Your task to perform on an android device: change timer sound Image 0: 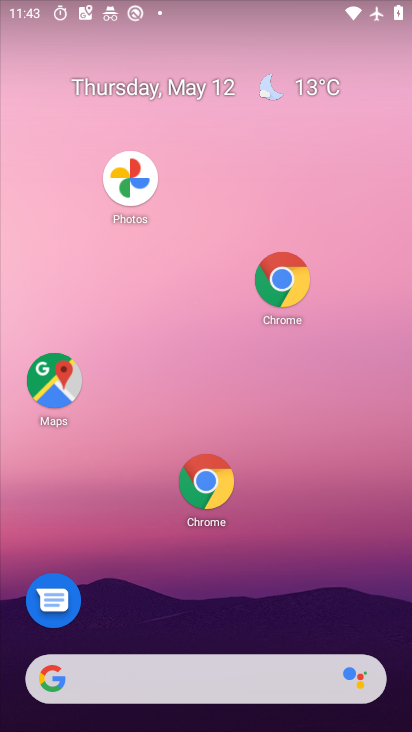
Step 0: drag from (364, 629) to (188, 200)
Your task to perform on an android device: change timer sound Image 1: 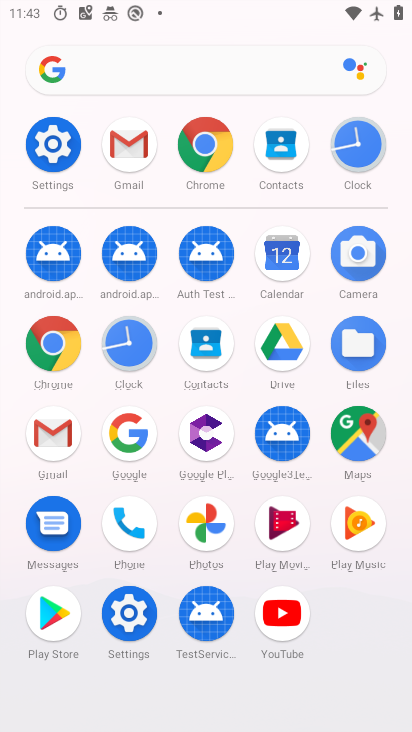
Step 1: click (109, 334)
Your task to perform on an android device: change timer sound Image 2: 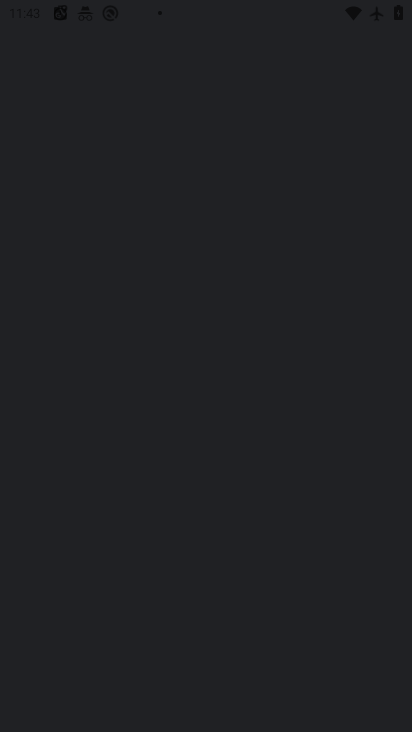
Step 2: click (112, 338)
Your task to perform on an android device: change timer sound Image 3: 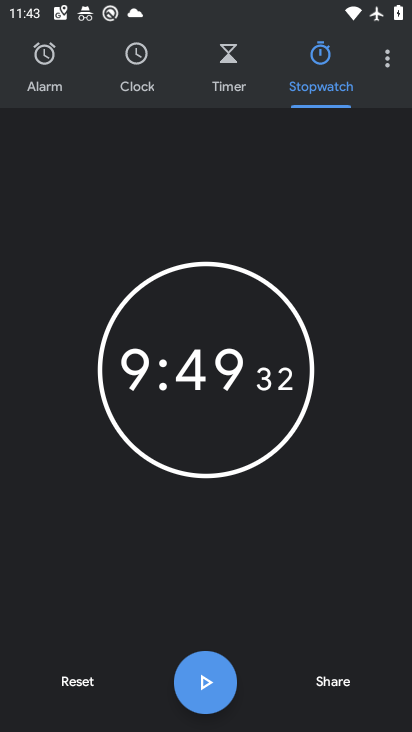
Step 3: click (120, 343)
Your task to perform on an android device: change timer sound Image 4: 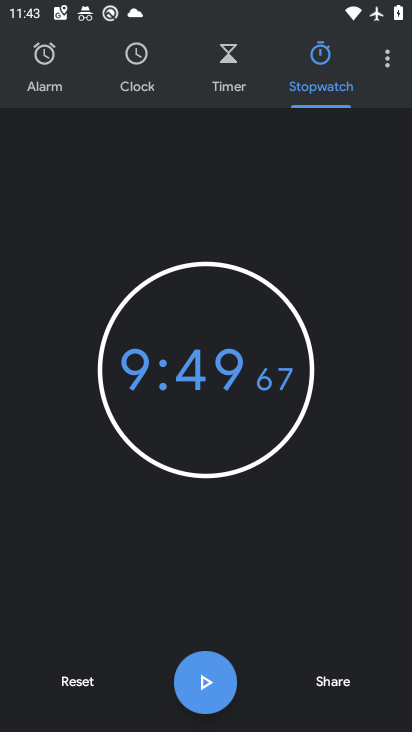
Step 4: click (380, 63)
Your task to perform on an android device: change timer sound Image 5: 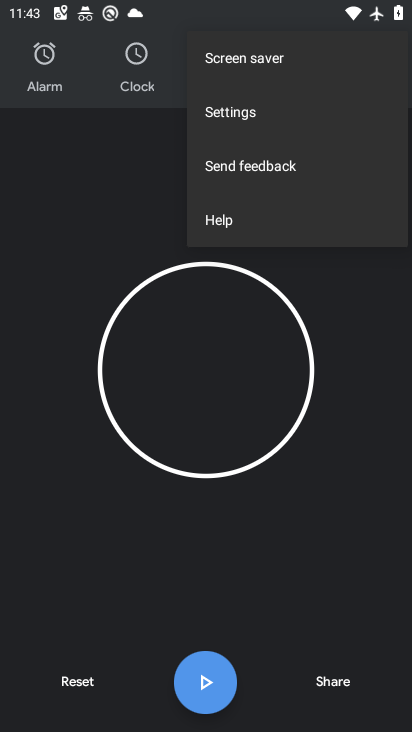
Step 5: click (212, 115)
Your task to perform on an android device: change timer sound Image 6: 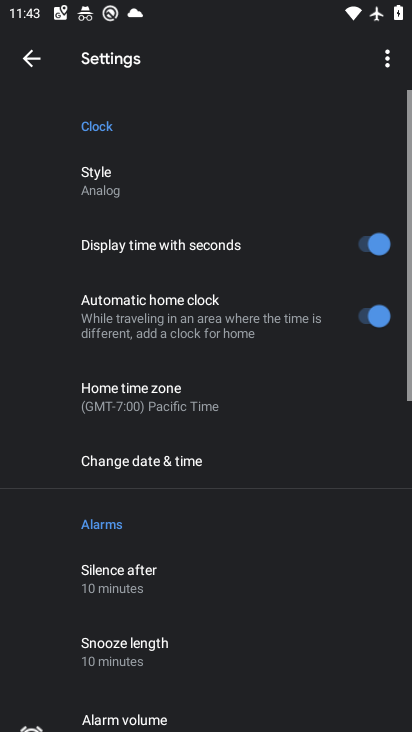
Step 6: drag from (166, 600) to (155, 130)
Your task to perform on an android device: change timer sound Image 7: 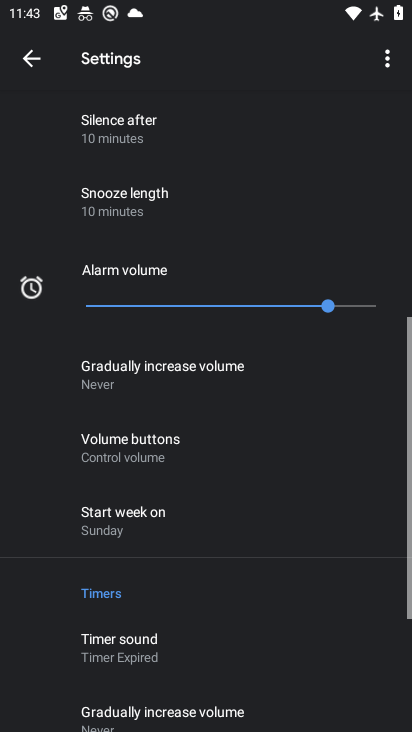
Step 7: drag from (189, 464) to (205, 108)
Your task to perform on an android device: change timer sound Image 8: 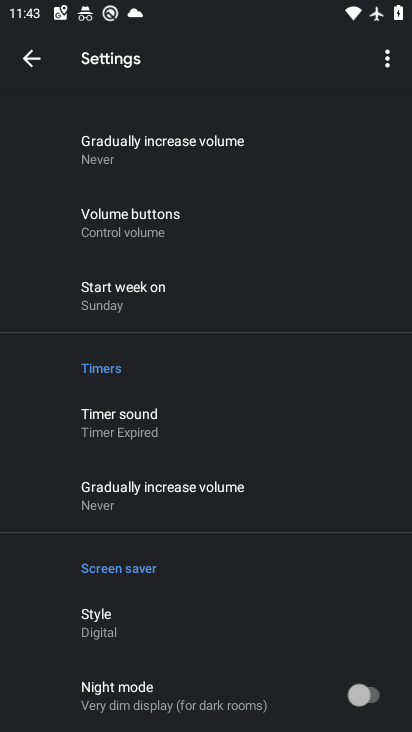
Step 8: click (100, 428)
Your task to perform on an android device: change timer sound Image 9: 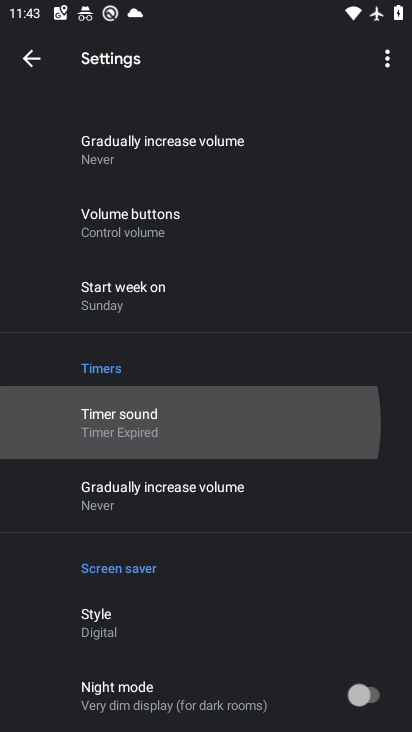
Step 9: click (100, 428)
Your task to perform on an android device: change timer sound Image 10: 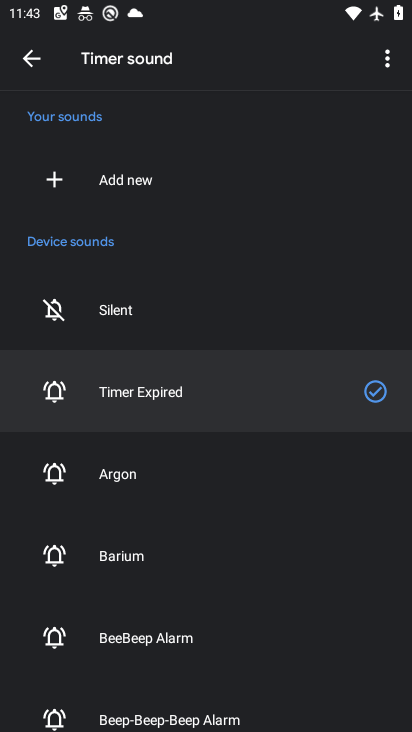
Step 10: click (76, 549)
Your task to perform on an android device: change timer sound Image 11: 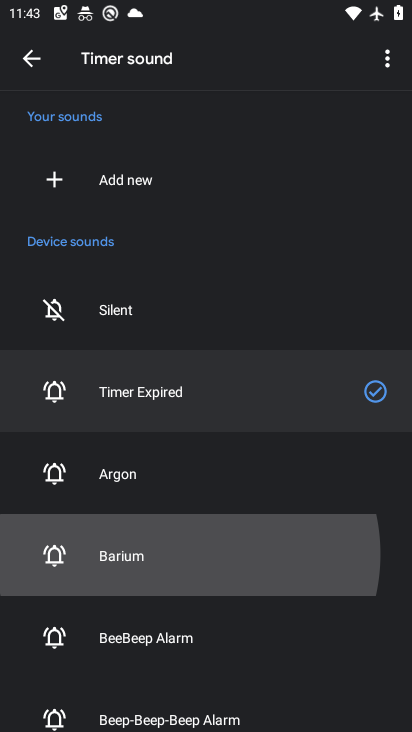
Step 11: click (75, 550)
Your task to perform on an android device: change timer sound Image 12: 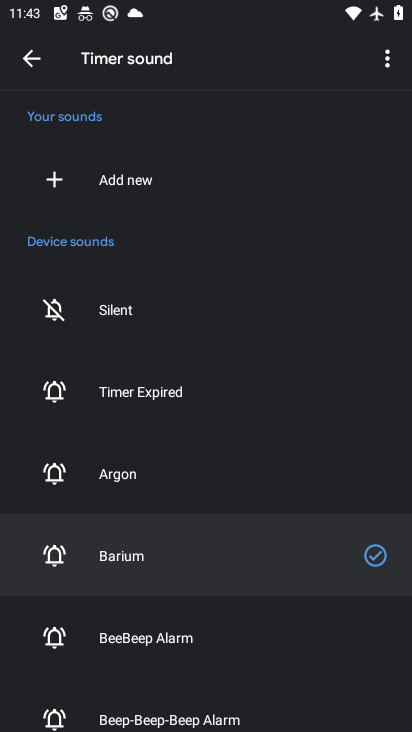
Step 12: click (136, 550)
Your task to perform on an android device: change timer sound Image 13: 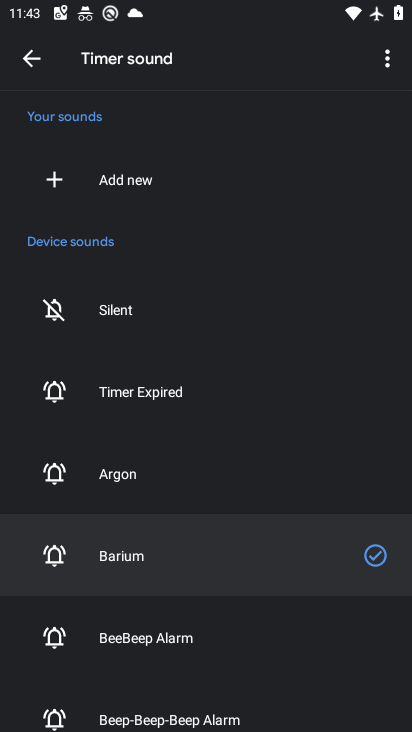
Step 13: click (136, 550)
Your task to perform on an android device: change timer sound Image 14: 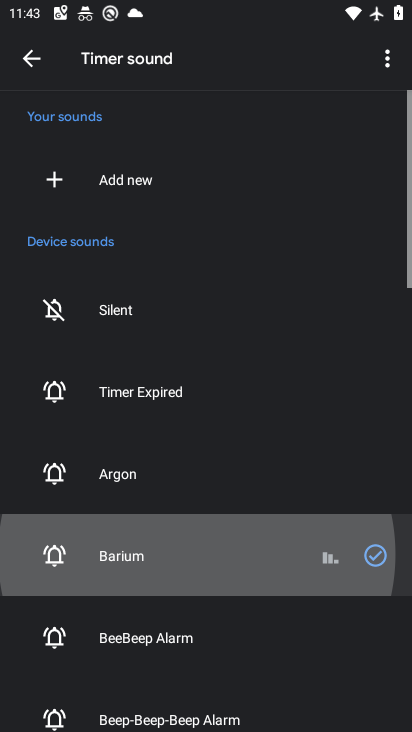
Step 14: click (135, 550)
Your task to perform on an android device: change timer sound Image 15: 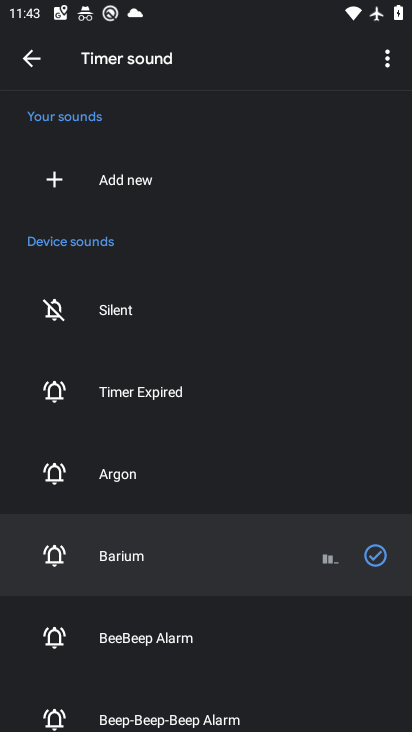
Step 15: task complete